Your task to perform on an android device: add a label to a message in the gmail app Image 0: 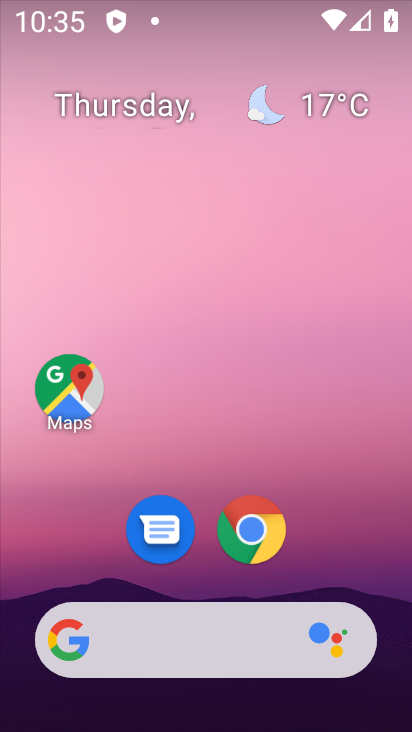
Step 0: drag from (124, 607) to (161, 52)
Your task to perform on an android device: add a label to a message in the gmail app Image 1: 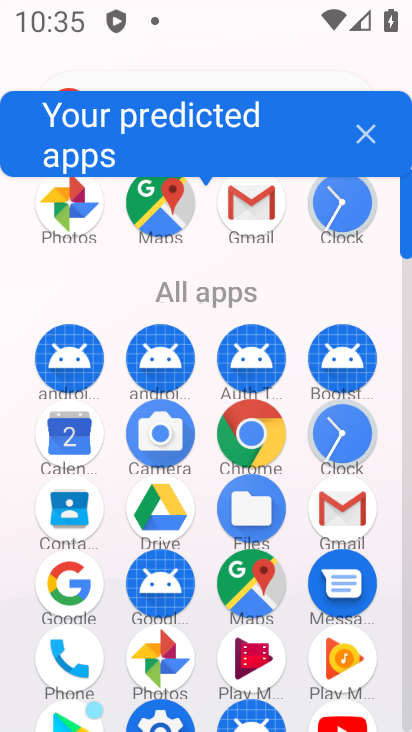
Step 1: click (334, 510)
Your task to perform on an android device: add a label to a message in the gmail app Image 2: 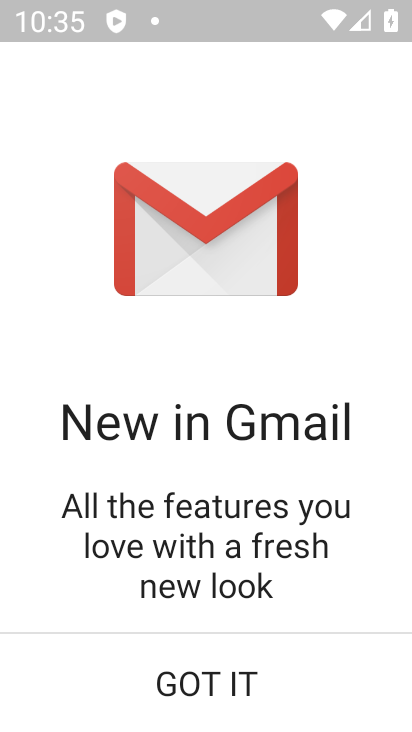
Step 2: click (238, 672)
Your task to perform on an android device: add a label to a message in the gmail app Image 3: 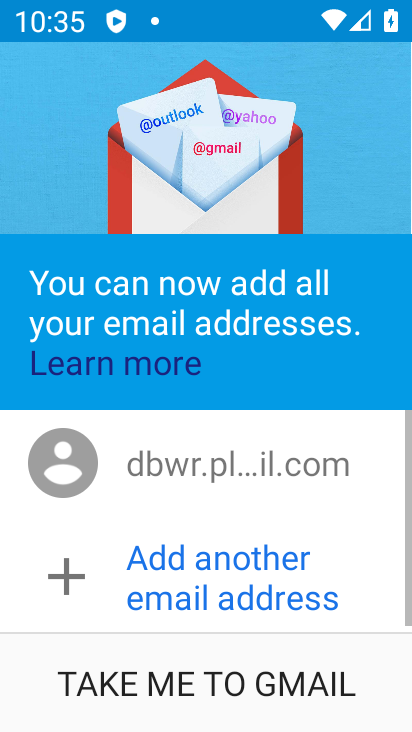
Step 3: click (204, 685)
Your task to perform on an android device: add a label to a message in the gmail app Image 4: 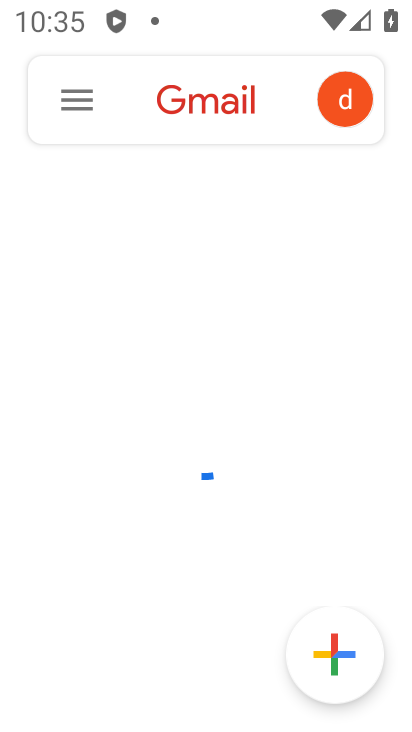
Step 4: click (91, 93)
Your task to perform on an android device: add a label to a message in the gmail app Image 5: 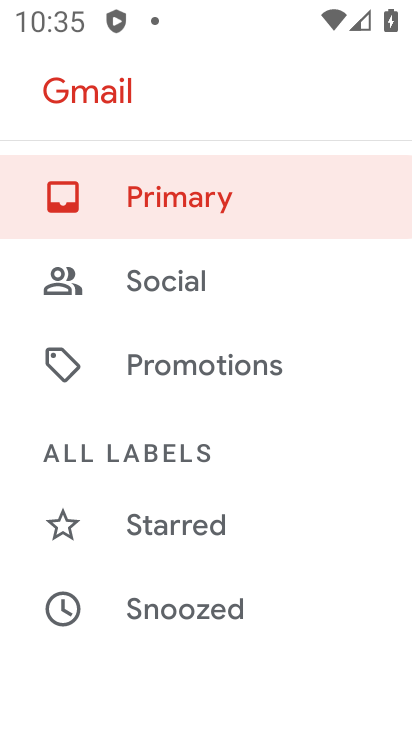
Step 5: click (183, 202)
Your task to perform on an android device: add a label to a message in the gmail app Image 6: 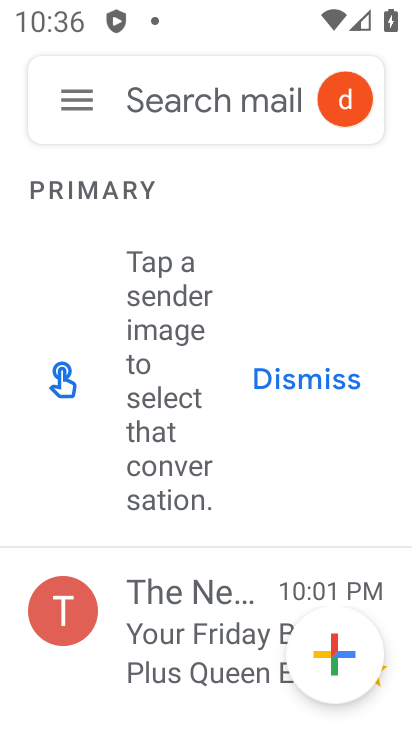
Step 6: click (183, 619)
Your task to perform on an android device: add a label to a message in the gmail app Image 7: 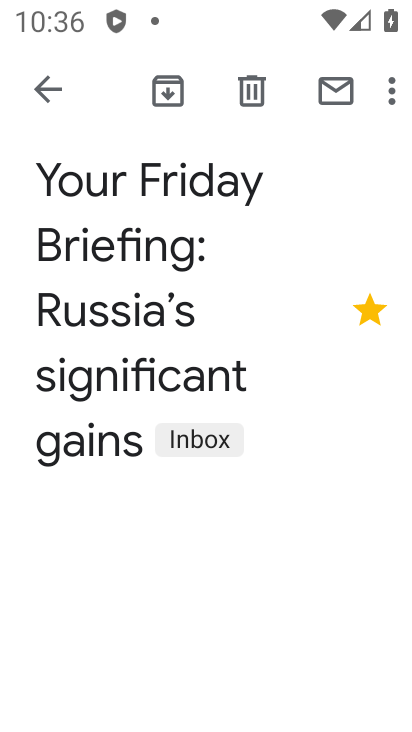
Step 7: click (388, 96)
Your task to perform on an android device: add a label to a message in the gmail app Image 8: 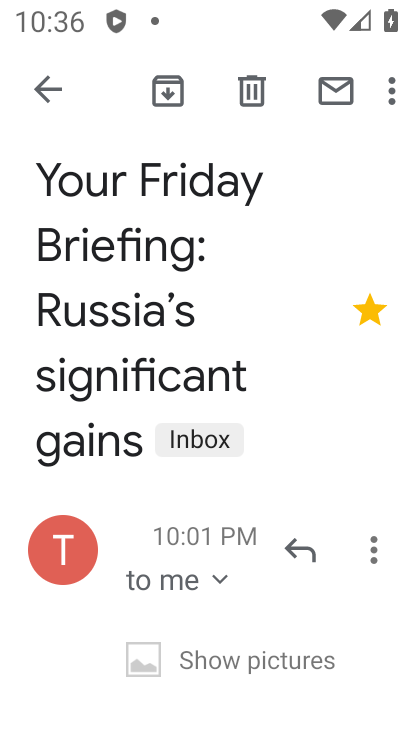
Step 8: click (395, 89)
Your task to perform on an android device: add a label to a message in the gmail app Image 9: 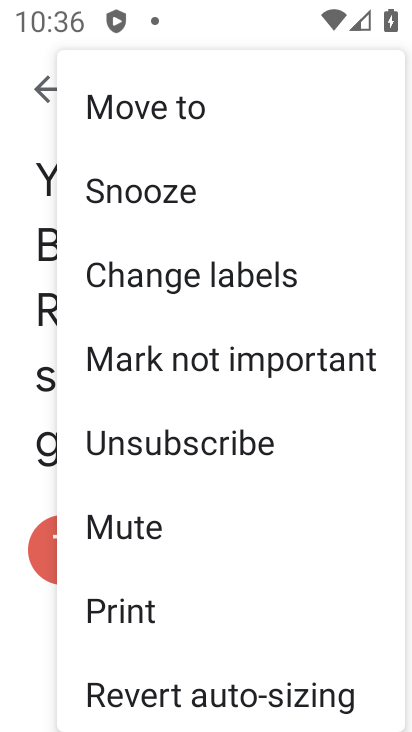
Step 9: click (171, 114)
Your task to perform on an android device: add a label to a message in the gmail app Image 10: 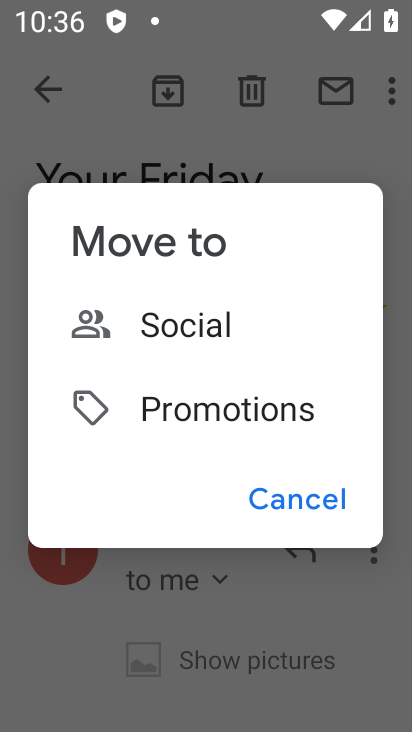
Step 10: click (163, 419)
Your task to perform on an android device: add a label to a message in the gmail app Image 11: 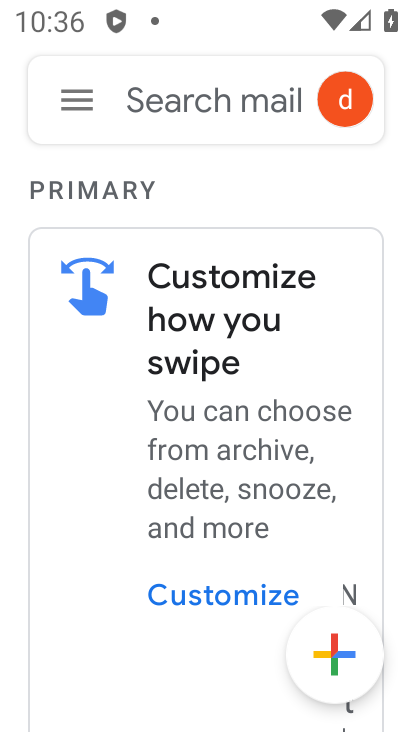
Step 11: task complete